Your task to perform on an android device: turn off smart reply in the gmail app Image 0: 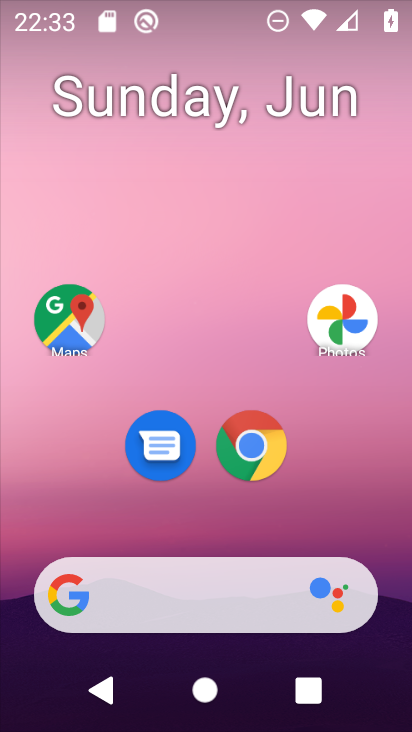
Step 0: drag from (292, 530) to (232, 79)
Your task to perform on an android device: turn off smart reply in the gmail app Image 1: 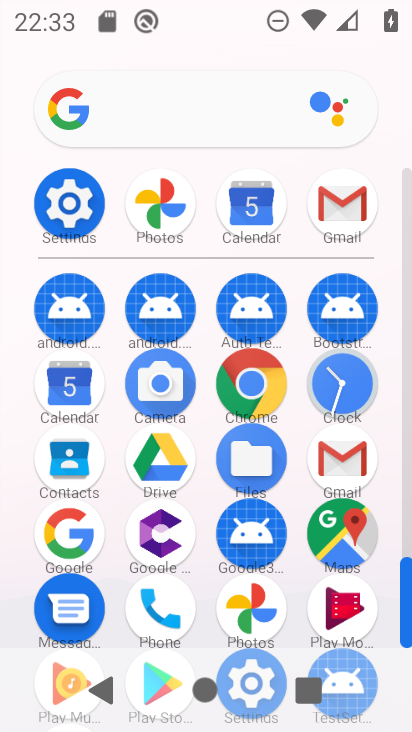
Step 1: click (358, 202)
Your task to perform on an android device: turn off smart reply in the gmail app Image 2: 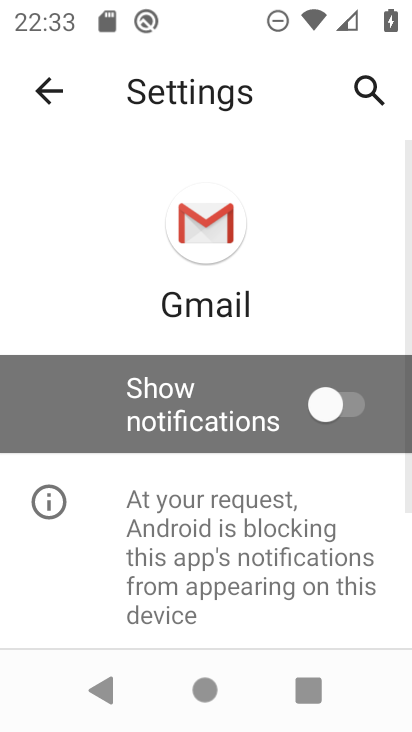
Step 2: click (38, 91)
Your task to perform on an android device: turn off smart reply in the gmail app Image 3: 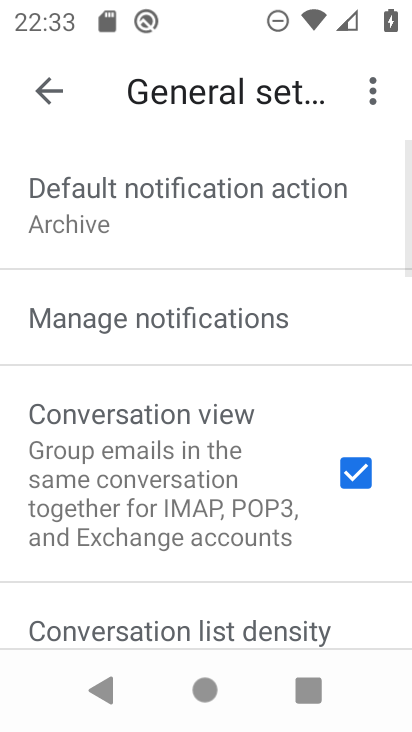
Step 3: click (44, 97)
Your task to perform on an android device: turn off smart reply in the gmail app Image 4: 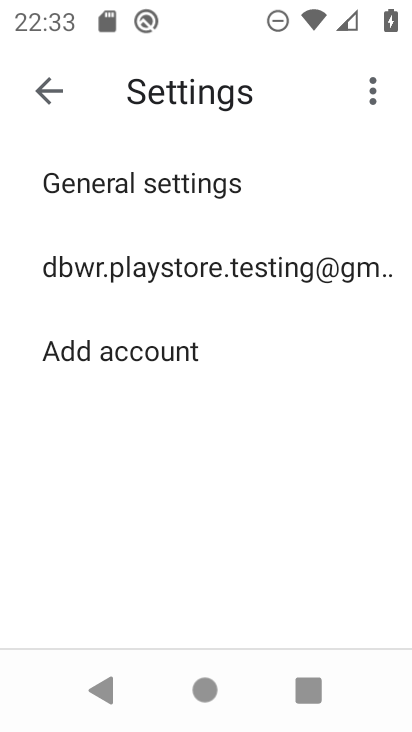
Step 4: click (156, 273)
Your task to perform on an android device: turn off smart reply in the gmail app Image 5: 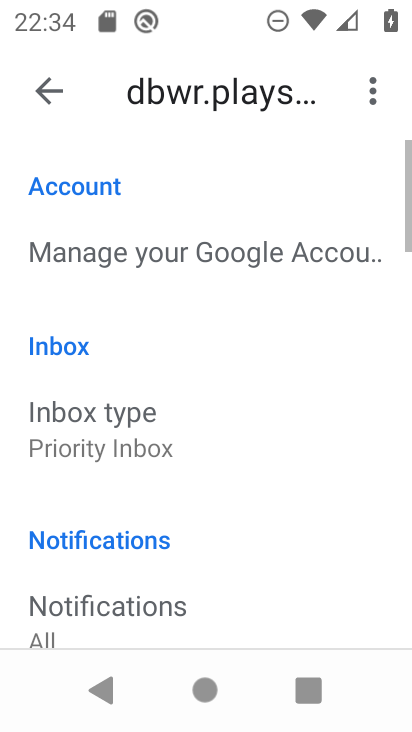
Step 5: drag from (285, 610) to (292, 1)
Your task to perform on an android device: turn off smart reply in the gmail app Image 6: 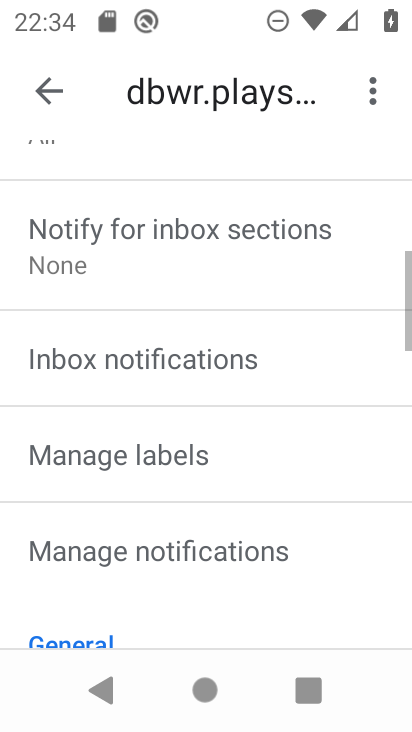
Step 6: drag from (314, 593) to (262, 16)
Your task to perform on an android device: turn off smart reply in the gmail app Image 7: 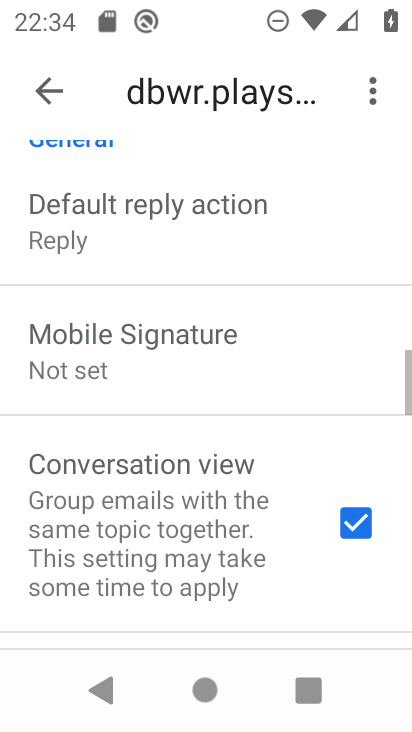
Step 7: drag from (302, 599) to (285, 1)
Your task to perform on an android device: turn off smart reply in the gmail app Image 8: 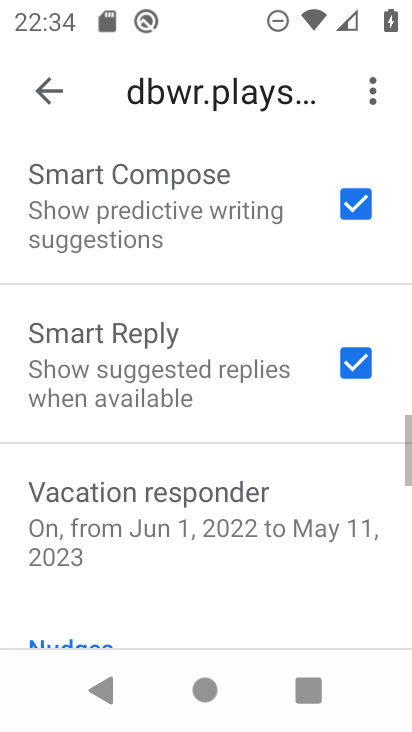
Step 8: drag from (314, 574) to (285, 39)
Your task to perform on an android device: turn off smart reply in the gmail app Image 9: 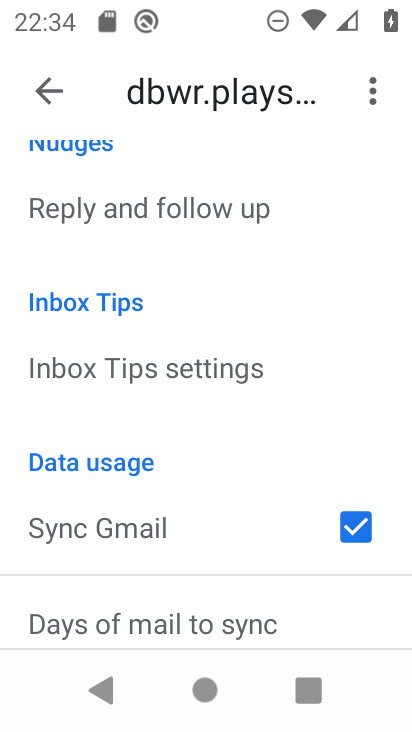
Step 9: drag from (326, 181) to (268, 731)
Your task to perform on an android device: turn off smart reply in the gmail app Image 10: 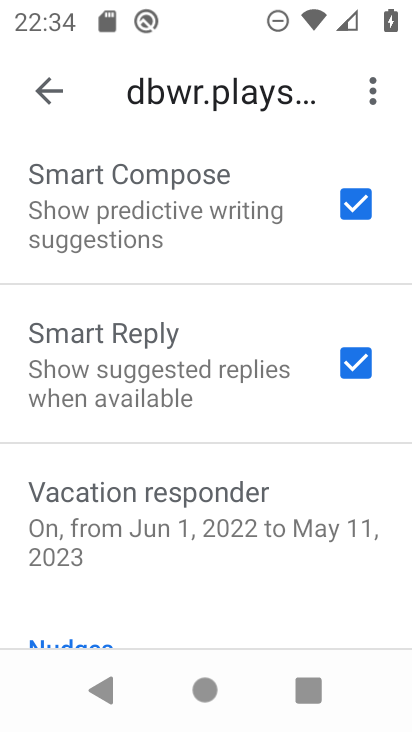
Step 10: click (364, 366)
Your task to perform on an android device: turn off smart reply in the gmail app Image 11: 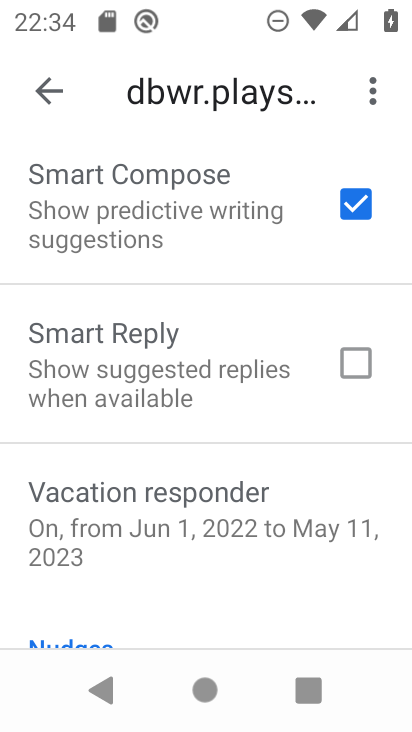
Step 11: task complete